Your task to perform on an android device: turn on translation in the chrome app Image 0: 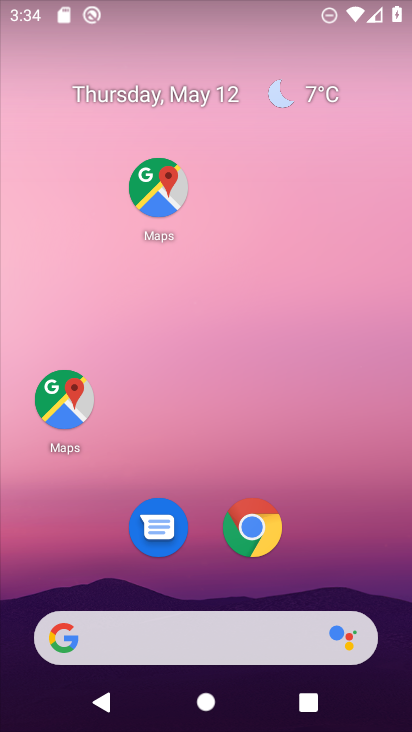
Step 0: drag from (201, 611) to (324, 31)
Your task to perform on an android device: turn on translation in the chrome app Image 1: 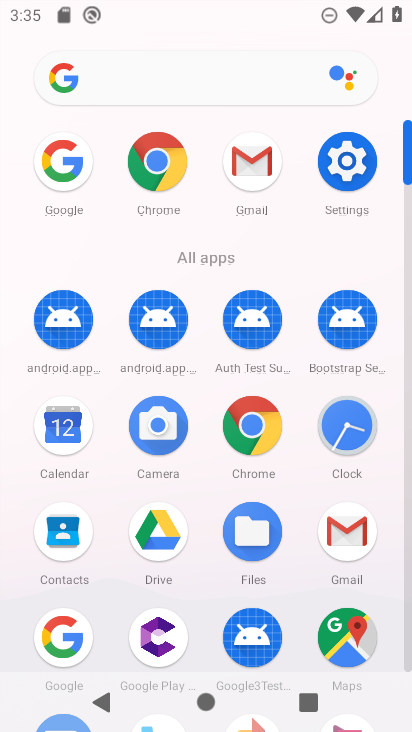
Step 1: click (251, 427)
Your task to perform on an android device: turn on translation in the chrome app Image 2: 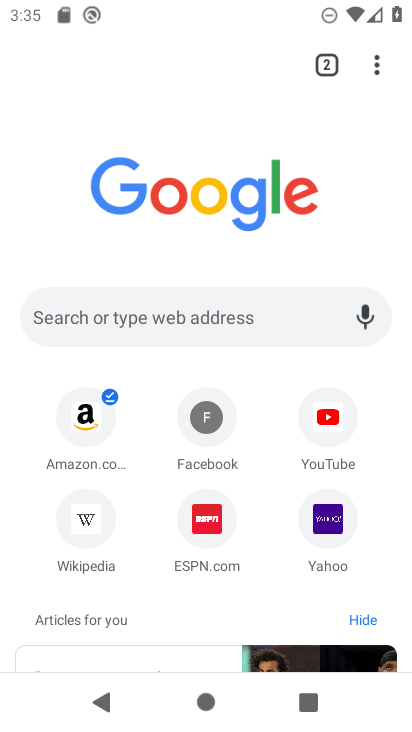
Step 2: click (370, 64)
Your task to perform on an android device: turn on translation in the chrome app Image 3: 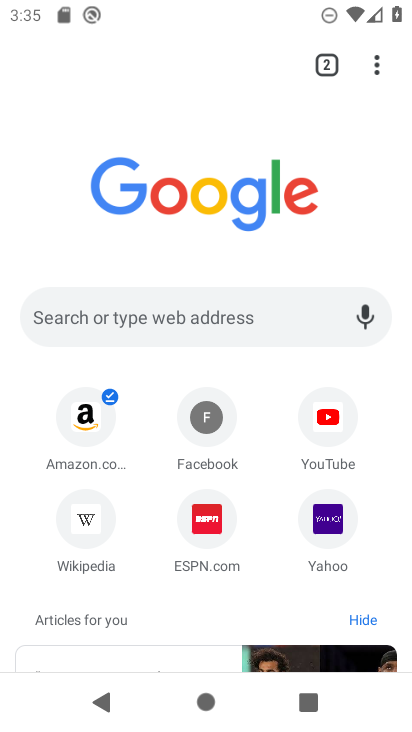
Step 3: click (372, 74)
Your task to perform on an android device: turn on translation in the chrome app Image 4: 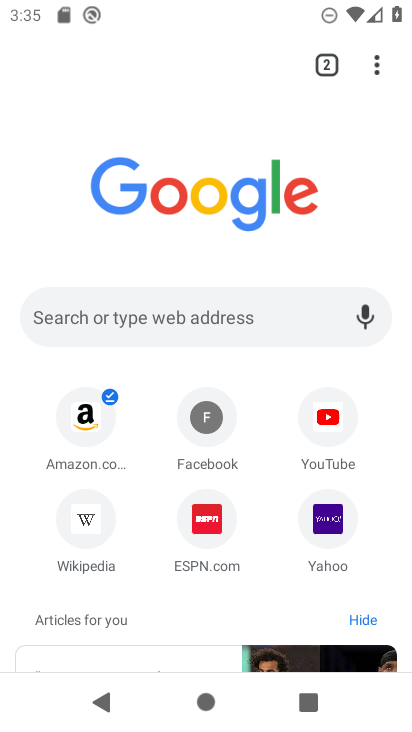
Step 4: click (372, 74)
Your task to perform on an android device: turn on translation in the chrome app Image 5: 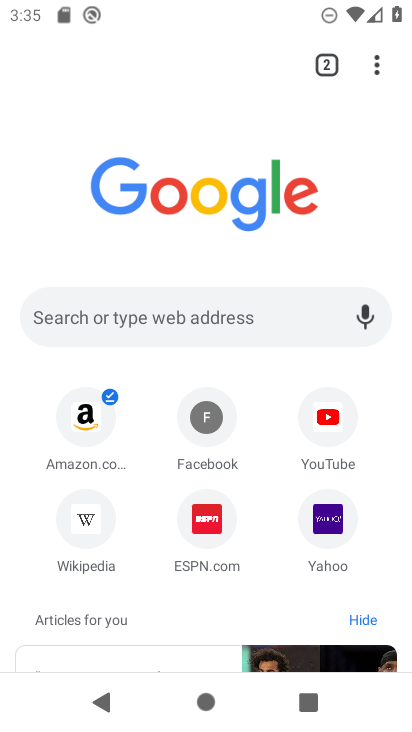
Step 5: click (381, 71)
Your task to perform on an android device: turn on translation in the chrome app Image 6: 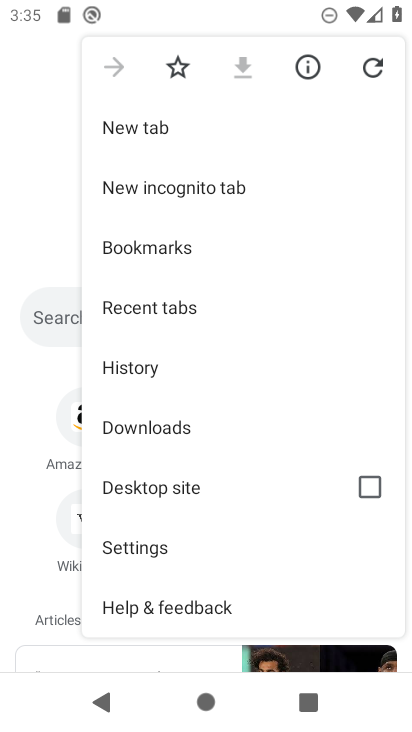
Step 6: click (154, 552)
Your task to perform on an android device: turn on translation in the chrome app Image 7: 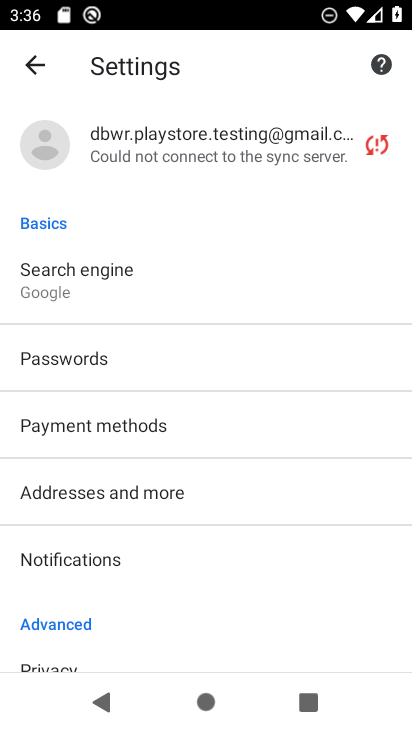
Step 7: drag from (149, 530) to (128, 369)
Your task to perform on an android device: turn on translation in the chrome app Image 8: 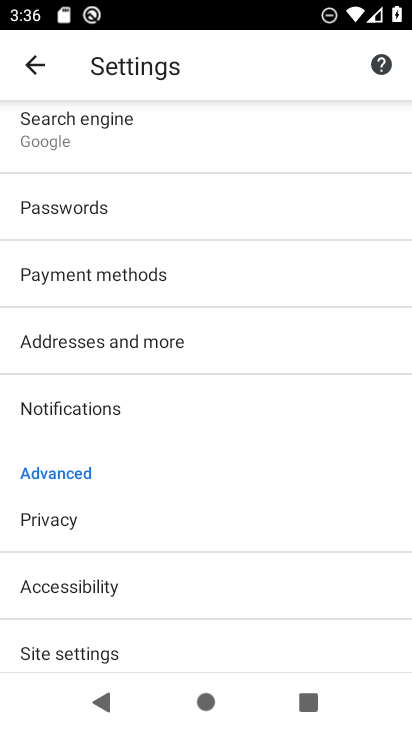
Step 8: drag from (121, 498) to (92, 190)
Your task to perform on an android device: turn on translation in the chrome app Image 9: 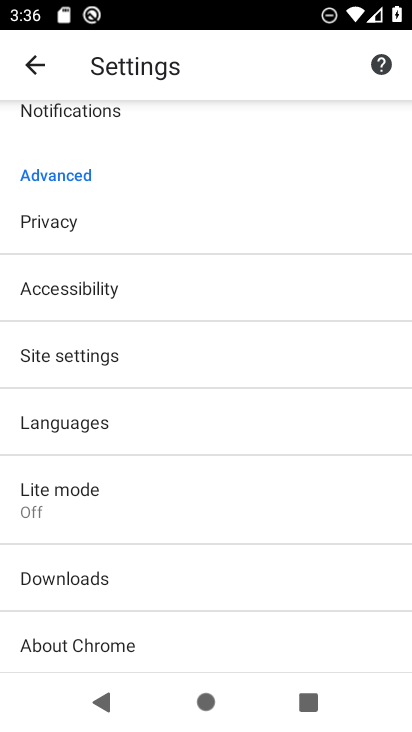
Step 9: click (68, 437)
Your task to perform on an android device: turn on translation in the chrome app Image 10: 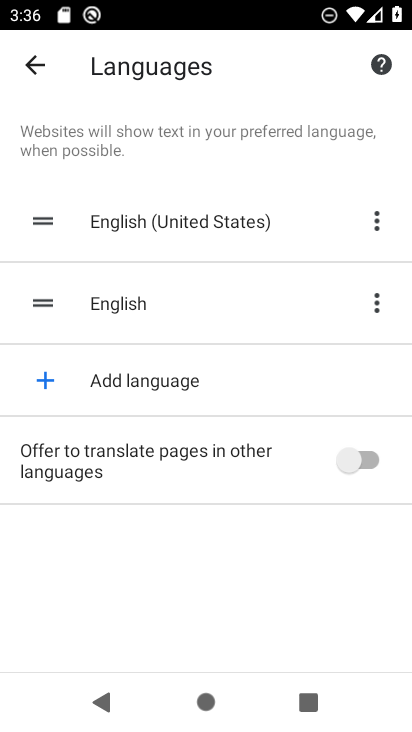
Step 10: click (350, 461)
Your task to perform on an android device: turn on translation in the chrome app Image 11: 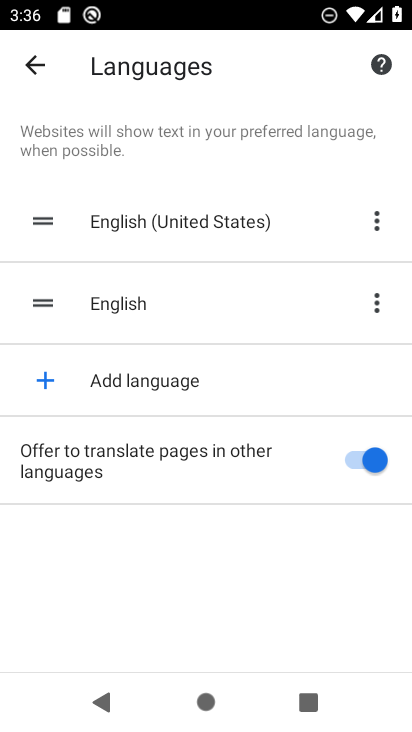
Step 11: task complete